Your task to perform on an android device: move an email to a new category in the gmail app Image 0: 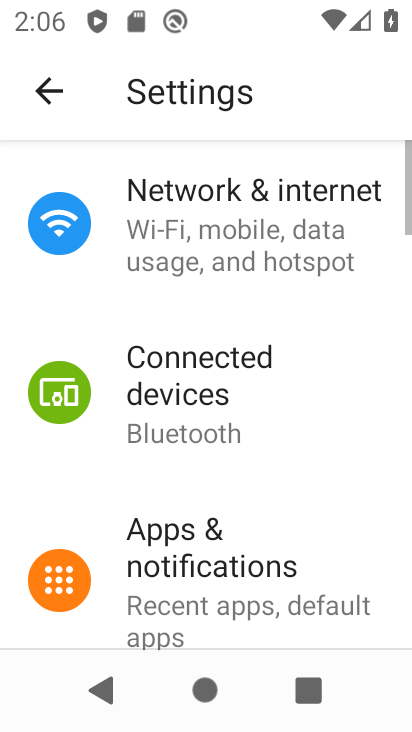
Step 0: press home button
Your task to perform on an android device: move an email to a new category in the gmail app Image 1: 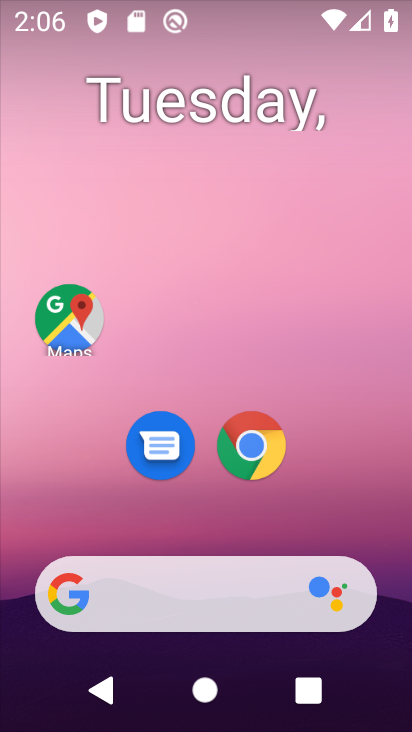
Step 1: drag from (114, 560) to (213, 54)
Your task to perform on an android device: move an email to a new category in the gmail app Image 2: 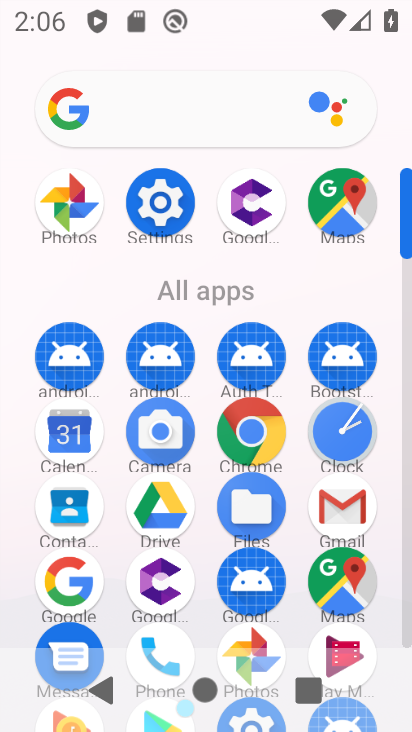
Step 2: drag from (148, 685) to (219, 382)
Your task to perform on an android device: move an email to a new category in the gmail app Image 3: 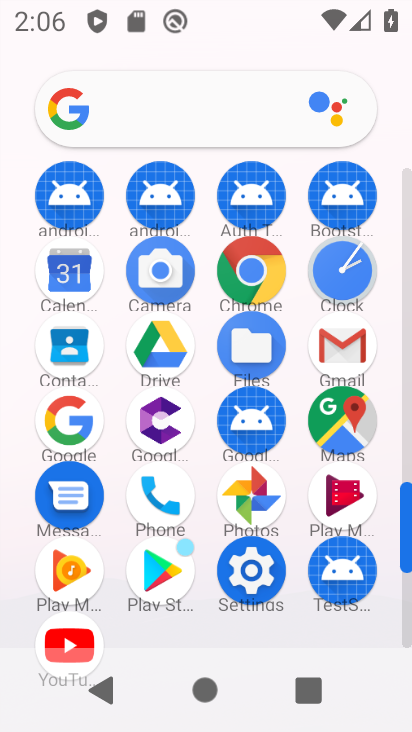
Step 3: click (342, 350)
Your task to perform on an android device: move an email to a new category in the gmail app Image 4: 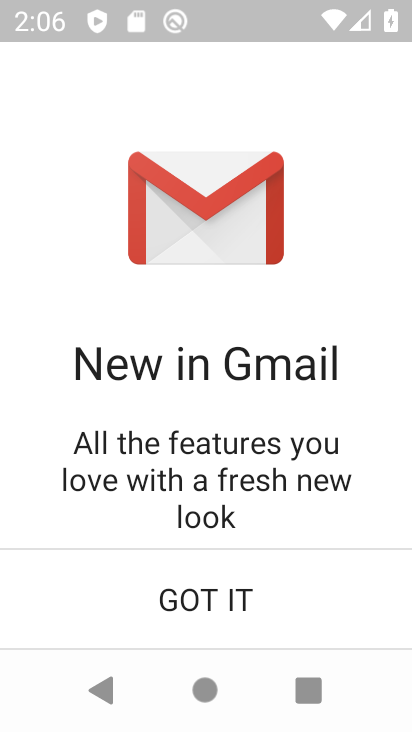
Step 4: click (250, 616)
Your task to perform on an android device: move an email to a new category in the gmail app Image 5: 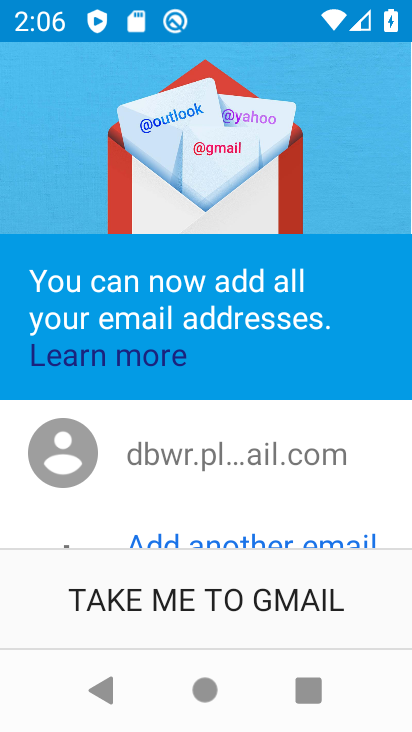
Step 5: click (237, 624)
Your task to perform on an android device: move an email to a new category in the gmail app Image 6: 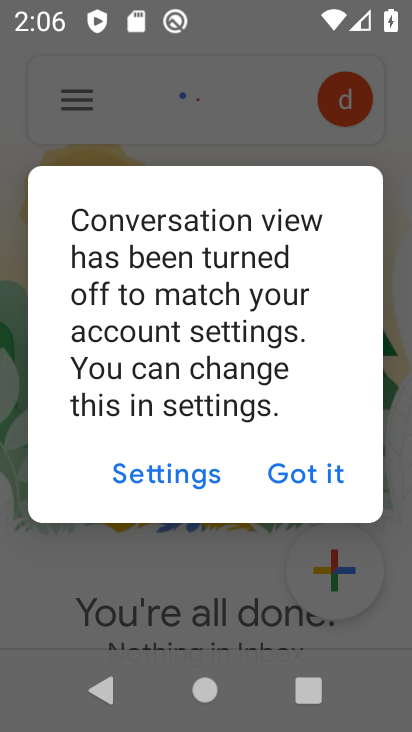
Step 6: click (313, 495)
Your task to perform on an android device: move an email to a new category in the gmail app Image 7: 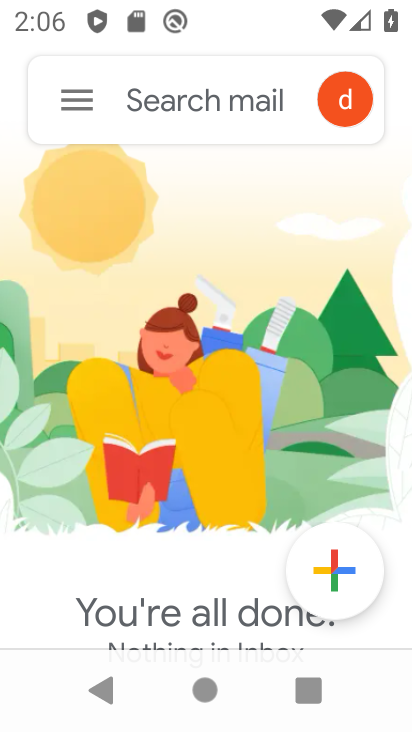
Step 7: click (77, 107)
Your task to perform on an android device: move an email to a new category in the gmail app Image 8: 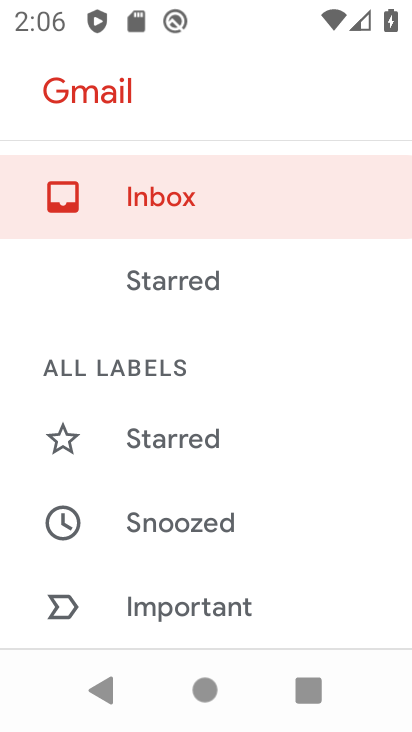
Step 8: drag from (141, 601) to (299, 163)
Your task to perform on an android device: move an email to a new category in the gmail app Image 9: 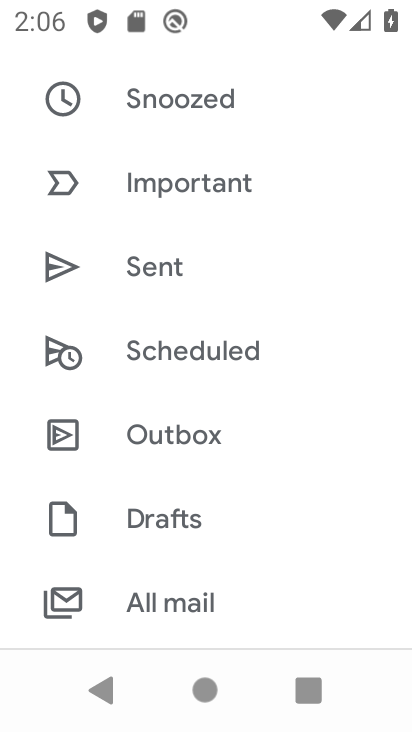
Step 9: drag from (161, 567) to (259, 251)
Your task to perform on an android device: move an email to a new category in the gmail app Image 10: 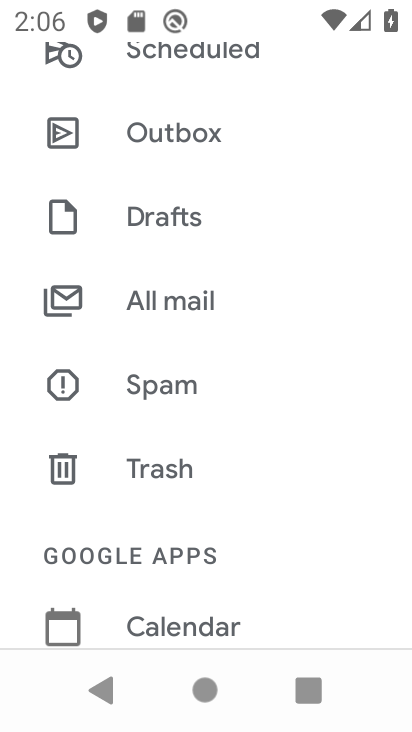
Step 10: click (228, 314)
Your task to perform on an android device: move an email to a new category in the gmail app Image 11: 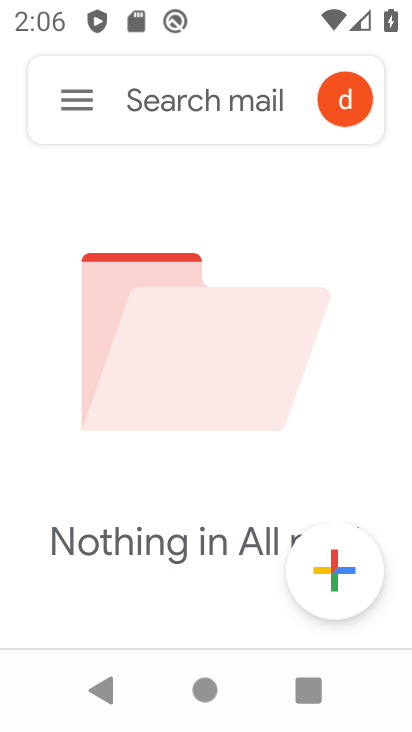
Step 11: task complete